Your task to perform on an android device: Open battery settings Image 0: 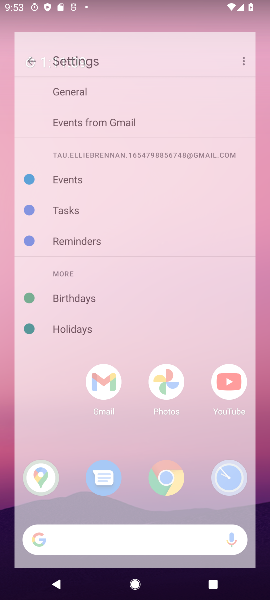
Step 0: press home button
Your task to perform on an android device: Open battery settings Image 1: 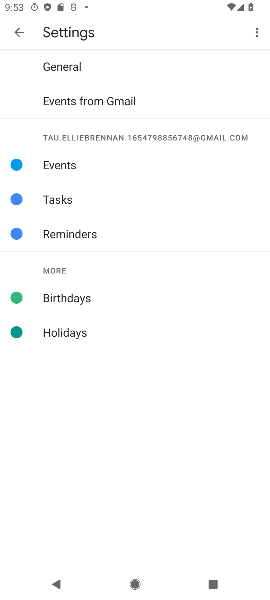
Step 1: press home button
Your task to perform on an android device: Open battery settings Image 2: 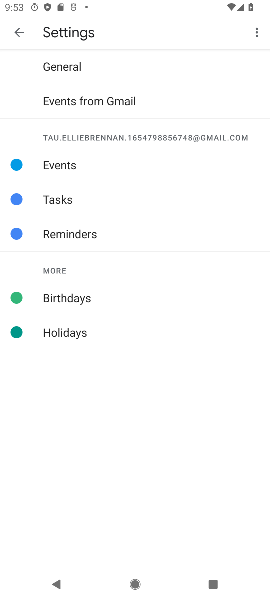
Step 2: press home button
Your task to perform on an android device: Open battery settings Image 3: 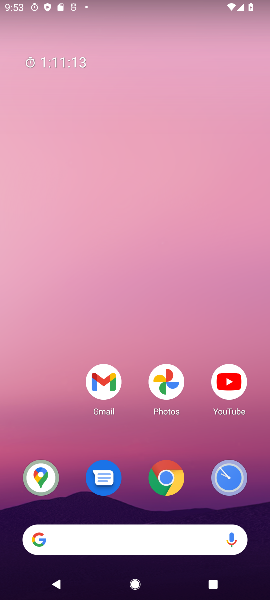
Step 3: drag from (52, 416) to (165, 7)
Your task to perform on an android device: Open battery settings Image 4: 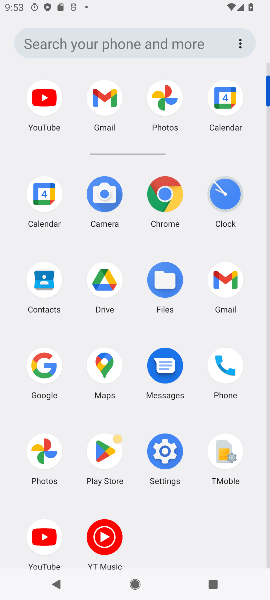
Step 4: click (152, 447)
Your task to perform on an android device: Open battery settings Image 5: 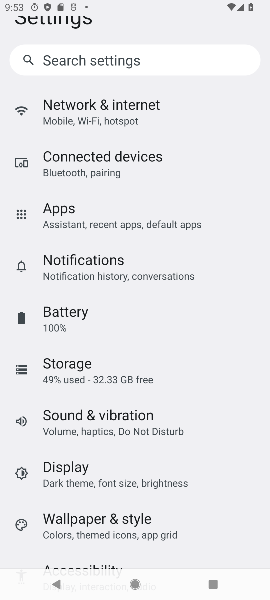
Step 5: click (59, 326)
Your task to perform on an android device: Open battery settings Image 6: 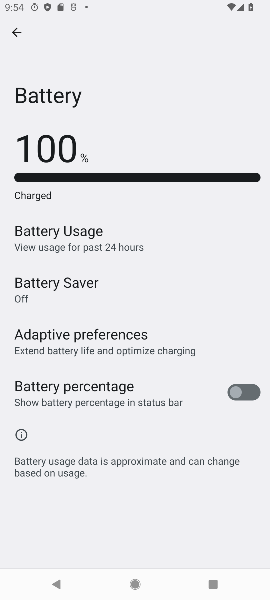
Step 6: task complete